Your task to perform on an android device: Open the map Image 0: 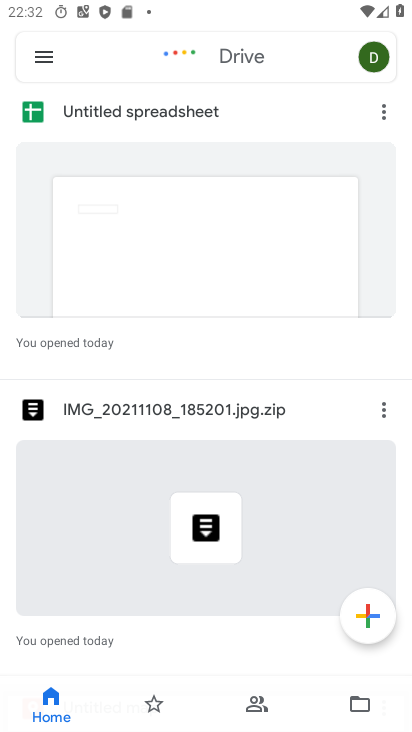
Step 0: press home button
Your task to perform on an android device: Open the map Image 1: 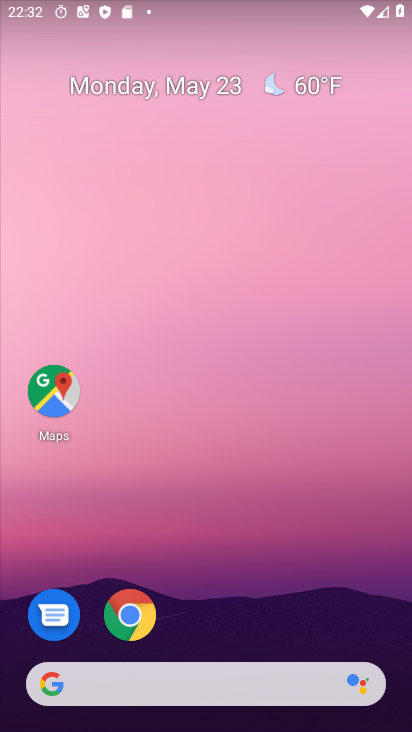
Step 1: click (63, 396)
Your task to perform on an android device: Open the map Image 2: 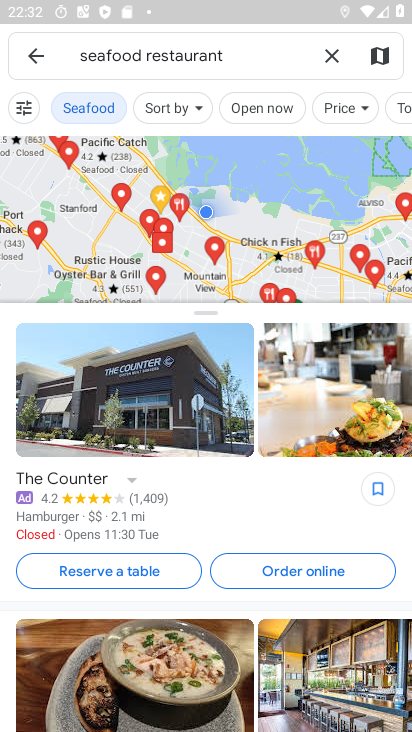
Step 2: task complete